Your task to perform on an android device: clear history in the chrome app Image 0: 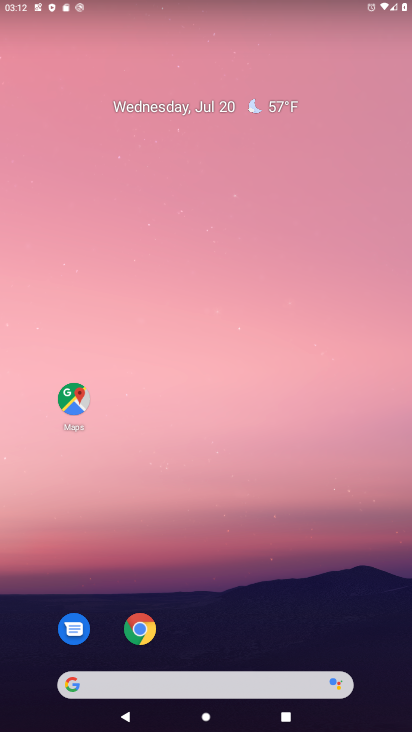
Step 0: click (138, 626)
Your task to perform on an android device: clear history in the chrome app Image 1: 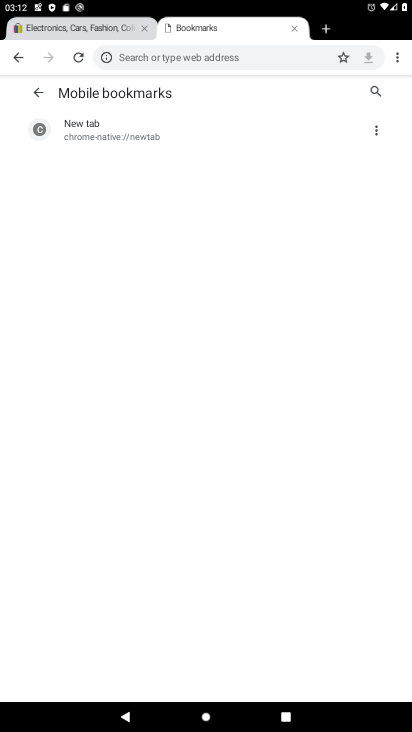
Step 1: click (394, 62)
Your task to perform on an android device: clear history in the chrome app Image 2: 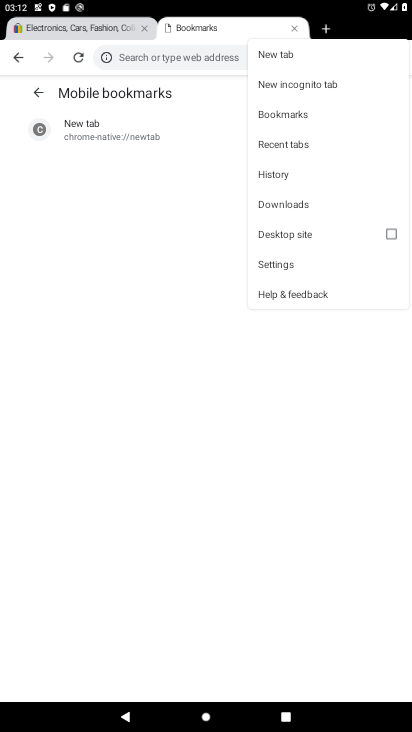
Step 2: click (274, 173)
Your task to perform on an android device: clear history in the chrome app Image 3: 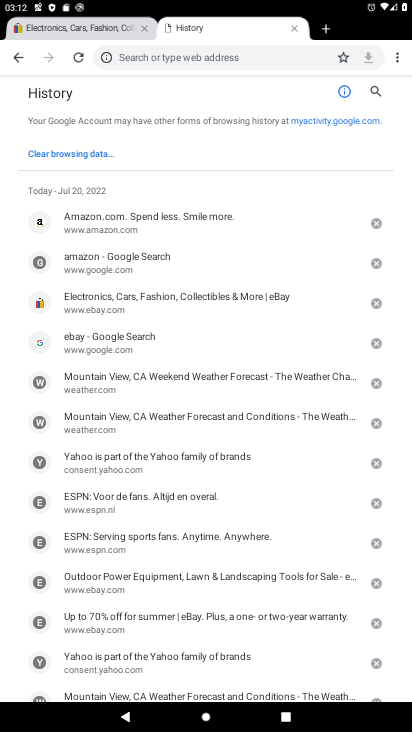
Step 3: click (71, 149)
Your task to perform on an android device: clear history in the chrome app Image 4: 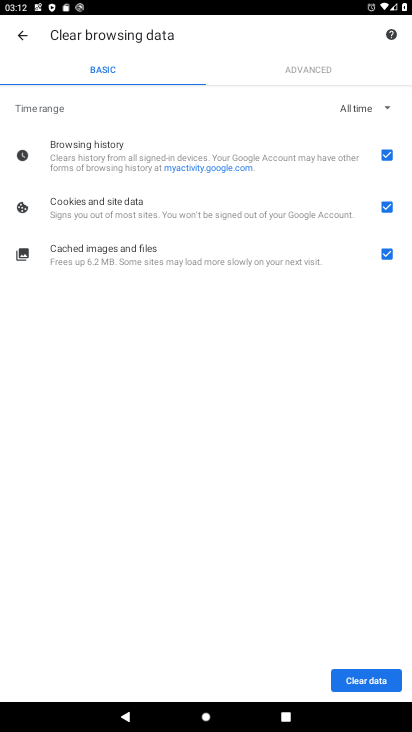
Step 4: click (388, 206)
Your task to perform on an android device: clear history in the chrome app Image 5: 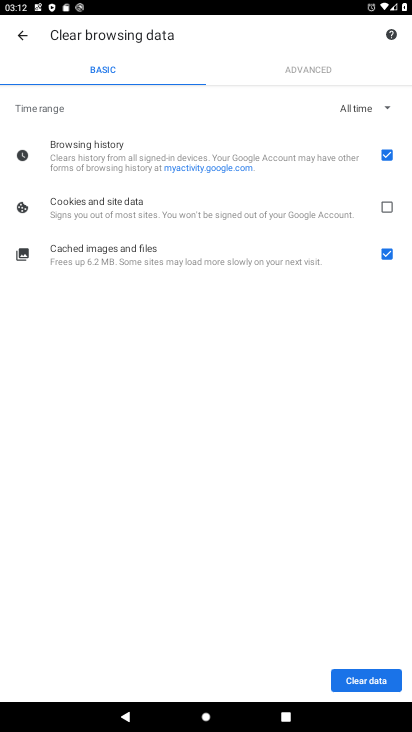
Step 5: click (386, 253)
Your task to perform on an android device: clear history in the chrome app Image 6: 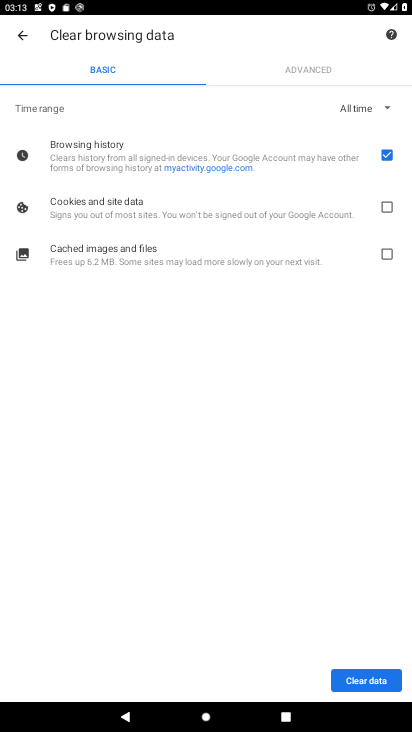
Step 6: click (363, 677)
Your task to perform on an android device: clear history in the chrome app Image 7: 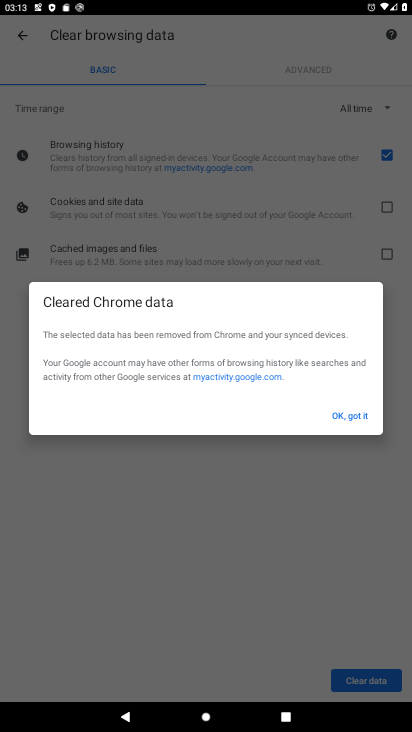
Step 7: click (355, 414)
Your task to perform on an android device: clear history in the chrome app Image 8: 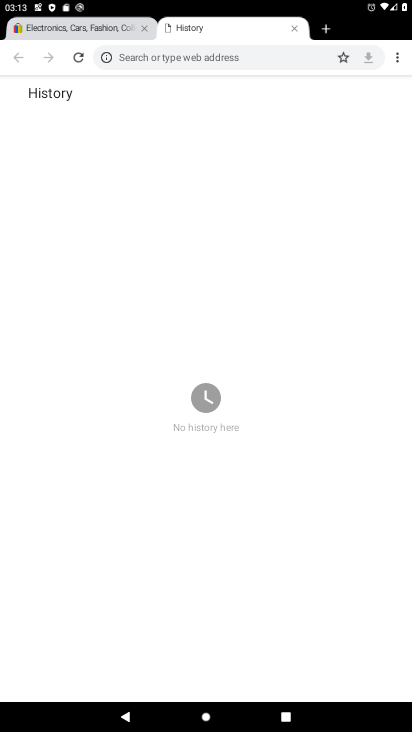
Step 8: task complete